Your task to perform on an android device: turn off sleep mode Image 0: 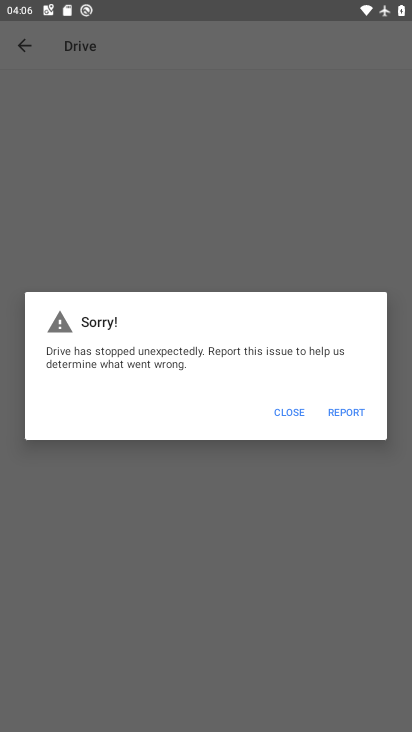
Step 0: press home button
Your task to perform on an android device: turn off sleep mode Image 1: 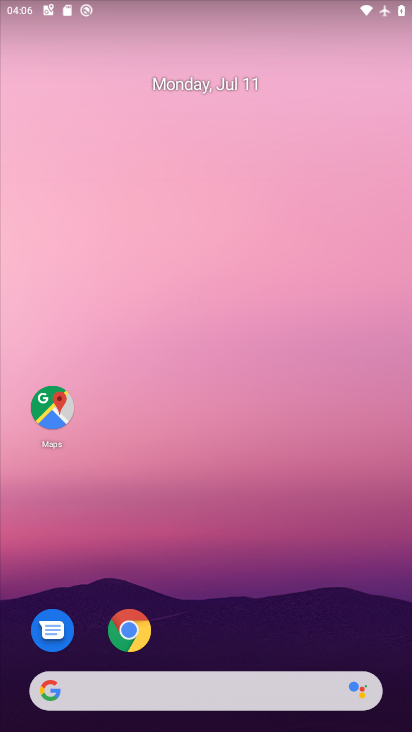
Step 1: drag from (296, 646) to (246, 106)
Your task to perform on an android device: turn off sleep mode Image 2: 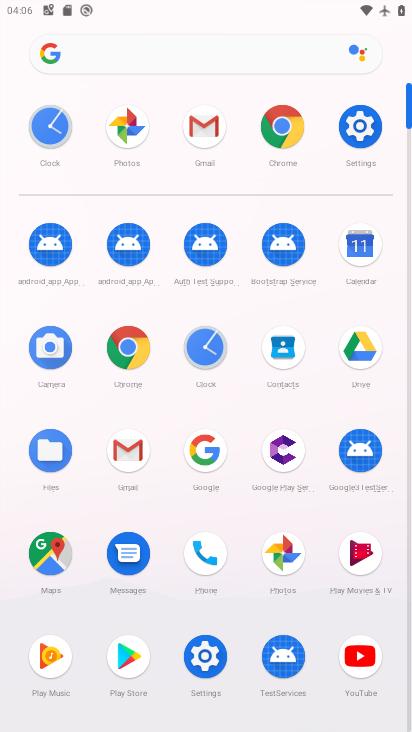
Step 2: click (360, 133)
Your task to perform on an android device: turn off sleep mode Image 3: 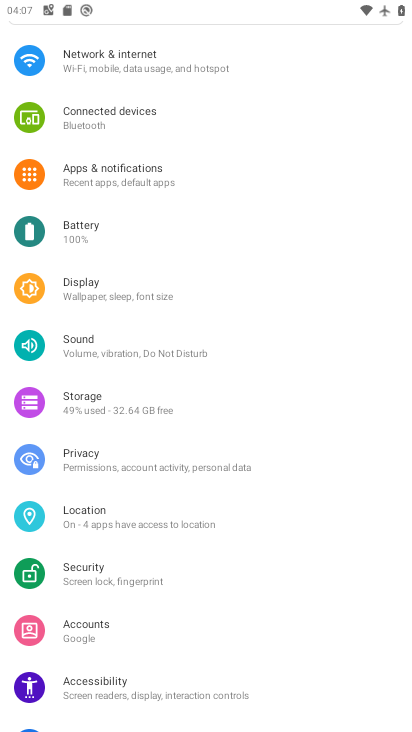
Step 3: click (189, 278)
Your task to perform on an android device: turn off sleep mode Image 4: 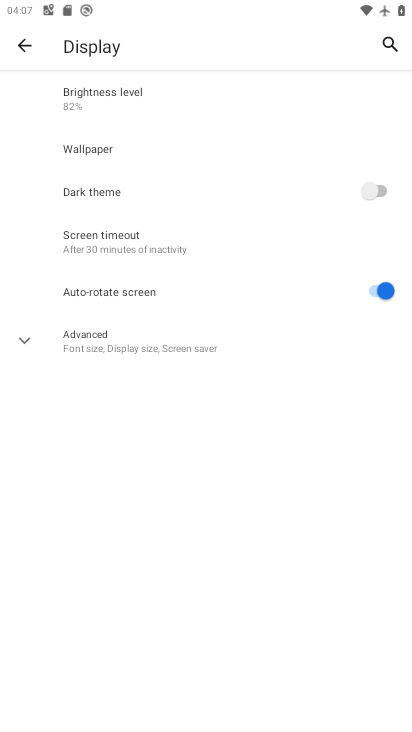
Step 4: click (269, 228)
Your task to perform on an android device: turn off sleep mode Image 5: 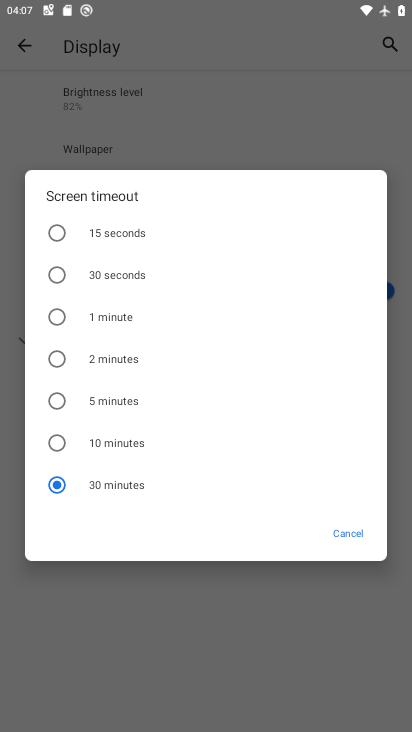
Step 5: click (226, 232)
Your task to perform on an android device: turn off sleep mode Image 6: 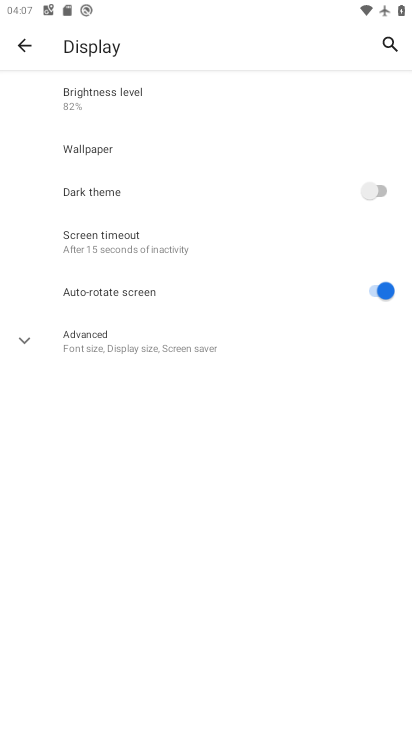
Step 6: task complete